Your task to perform on an android device: check google app version Image 0: 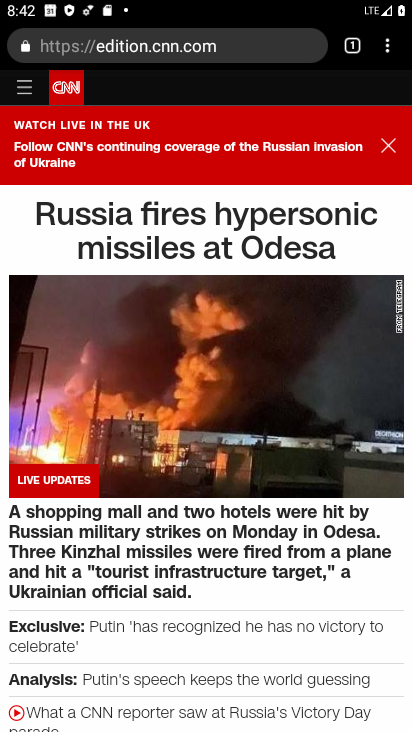
Step 0: press back button
Your task to perform on an android device: check google app version Image 1: 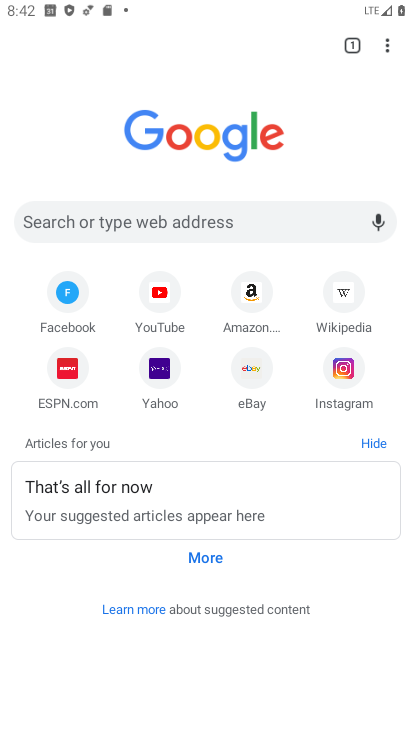
Step 1: press home button
Your task to perform on an android device: check google app version Image 2: 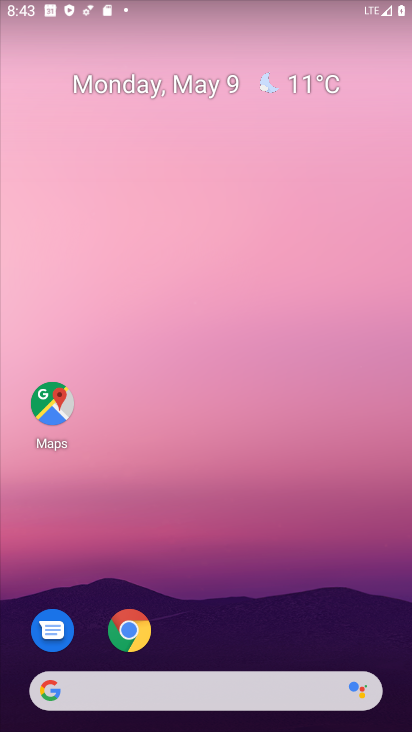
Step 2: drag from (150, 663) to (280, 6)
Your task to perform on an android device: check google app version Image 3: 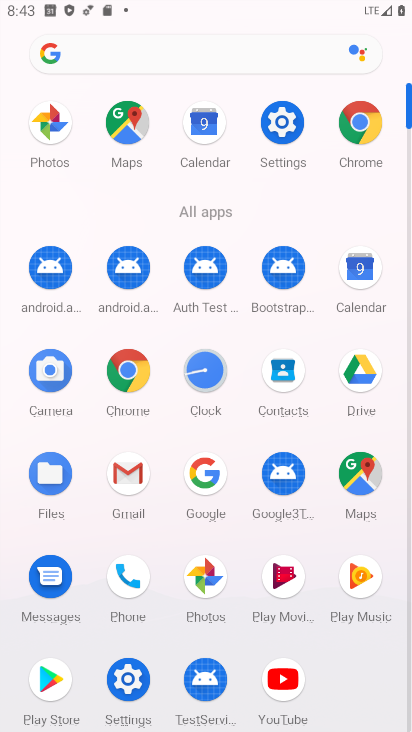
Step 3: click (128, 680)
Your task to perform on an android device: check google app version Image 4: 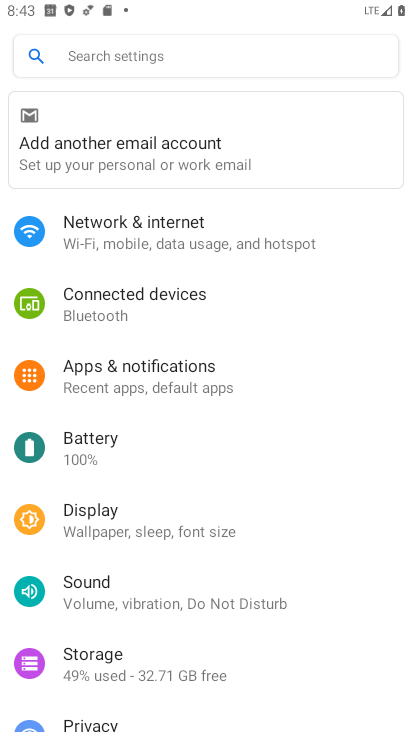
Step 4: click (218, 369)
Your task to perform on an android device: check google app version Image 5: 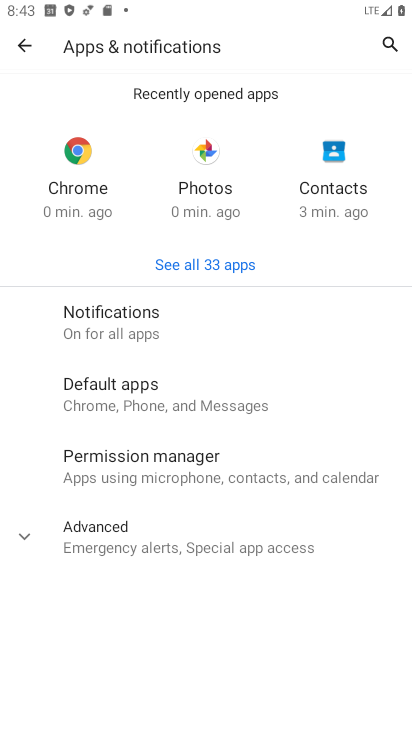
Step 5: click (227, 559)
Your task to perform on an android device: check google app version Image 6: 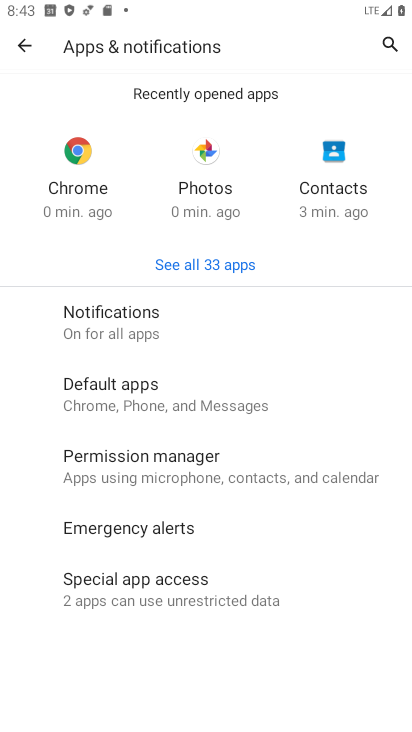
Step 6: click (221, 268)
Your task to perform on an android device: check google app version Image 7: 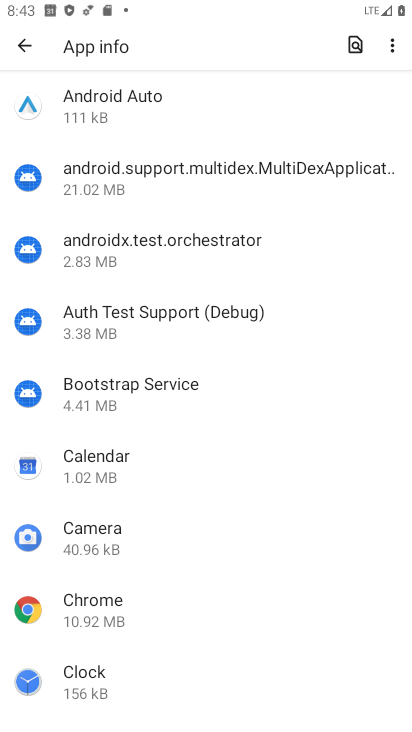
Step 7: drag from (124, 620) to (226, 123)
Your task to perform on an android device: check google app version Image 8: 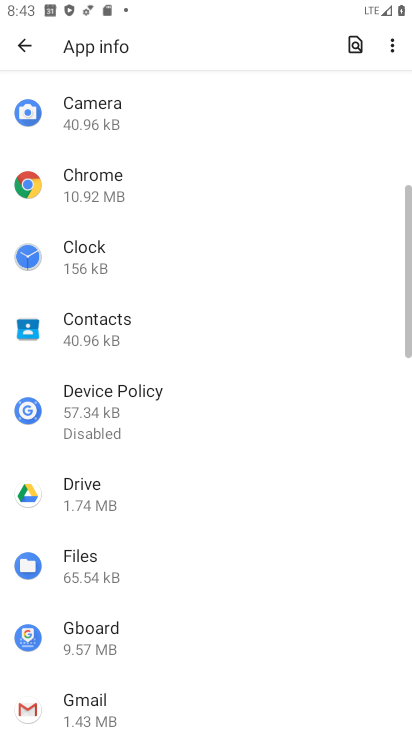
Step 8: drag from (181, 703) to (223, 223)
Your task to perform on an android device: check google app version Image 9: 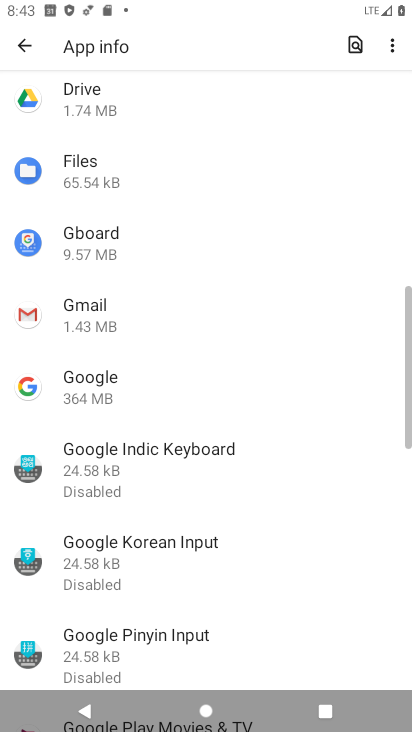
Step 9: drag from (157, 645) to (210, 528)
Your task to perform on an android device: check google app version Image 10: 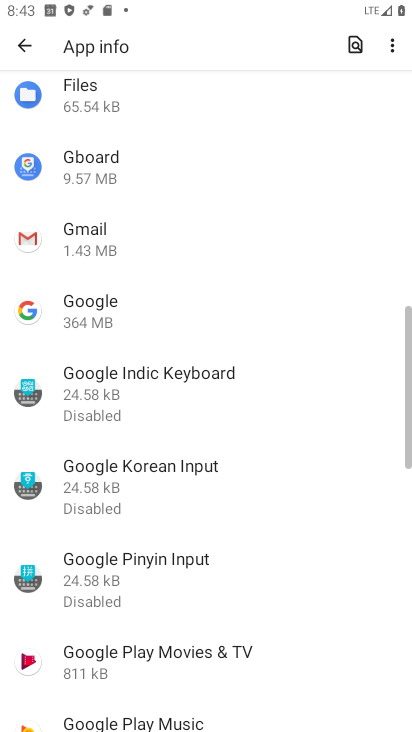
Step 10: click (150, 320)
Your task to perform on an android device: check google app version Image 11: 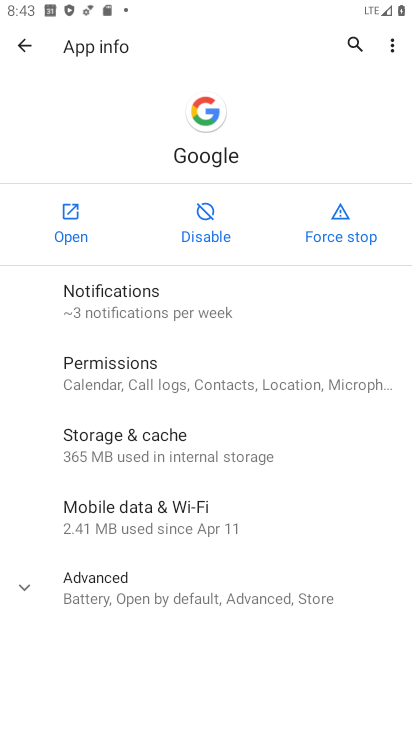
Step 11: click (204, 591)
Your task to perform on an android device: check google app version Image 12: 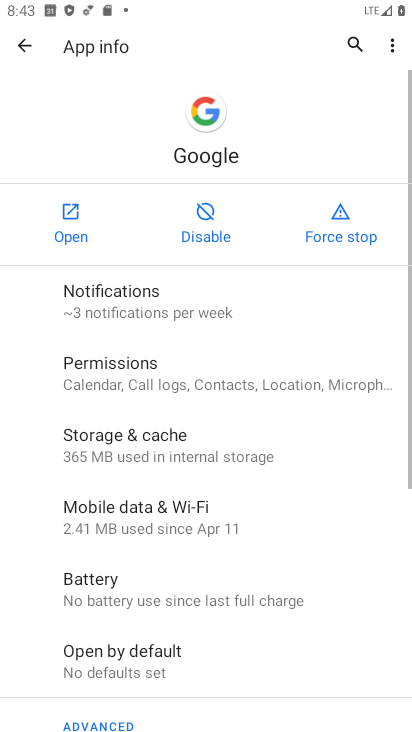
Step 12: task complete